Your task to perform on an android device: change alarm snooze length Image 0: 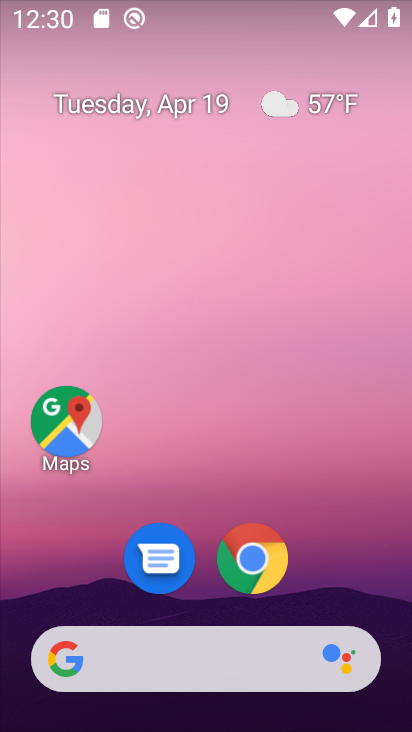
Step 0: drag from (316, 451) to (168, 106)
Your task to perform on an android device: change alarm snooze length Image 1: 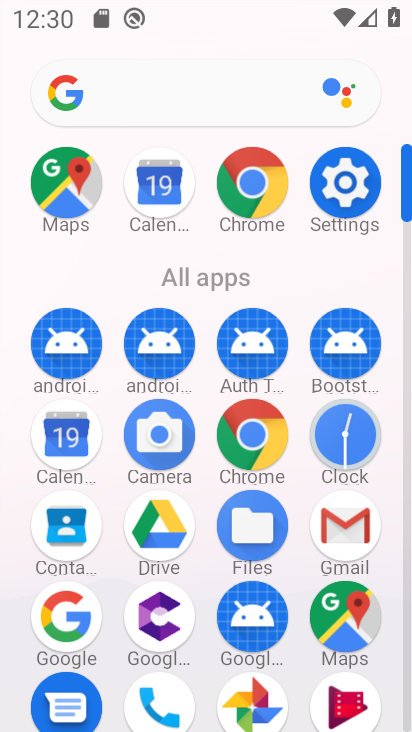
Step 1: click (335, 437)
Your task to perform on an android device: change alarm snooze length Image 2: 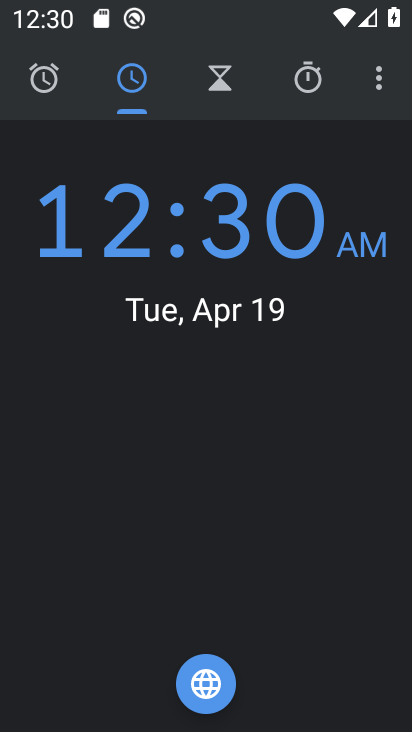
Step 2: click (383, 78)
Your task to perform on an android device: change alarm snooze length Image 3: 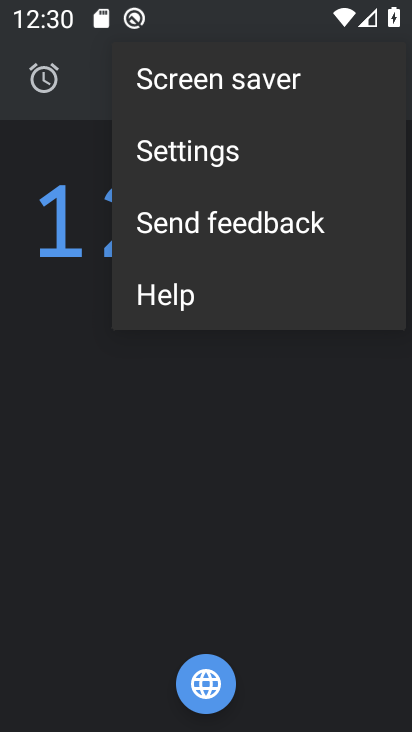
Step 3: click (201, 164)
Your task to perform on an android device: change alarm snooze length Image 4: 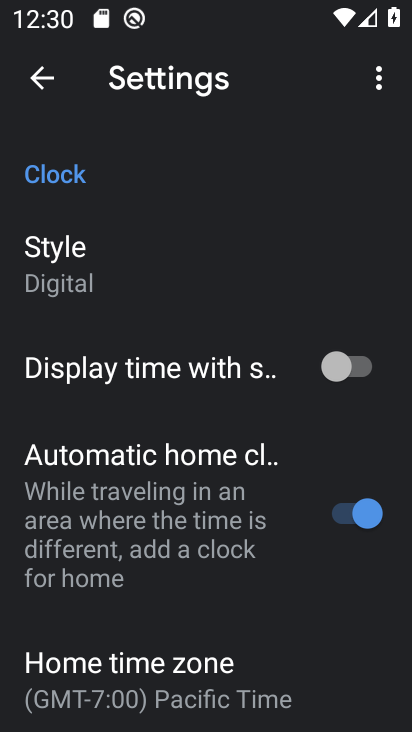
Step 4: drag from (149, 642) to (164, 210)
Your task to perform on an android device: change alarm snooze length Image 5: 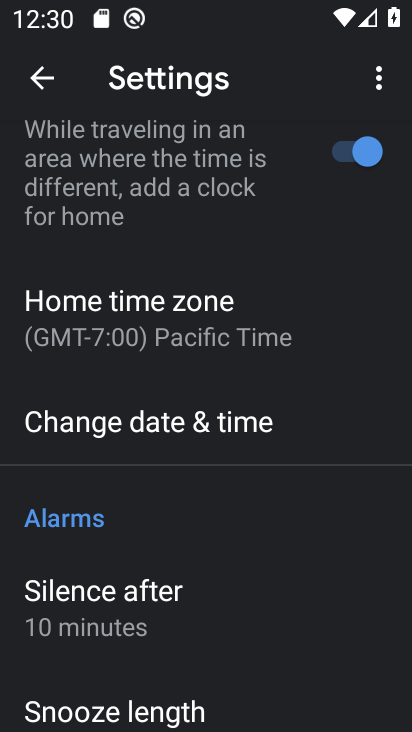
Step 5: click (133, 712)
Your task to perform on an android device: change alarm snooze length Image 6: 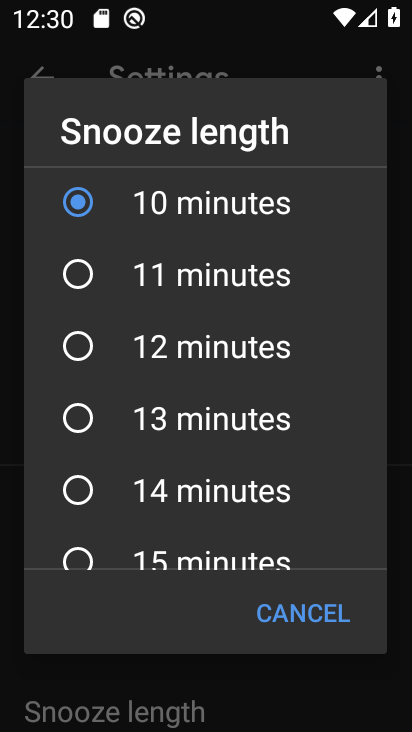
Step 6: click (85, 283)
Your task to perform on an android device: change alarm snooze length Image 7: 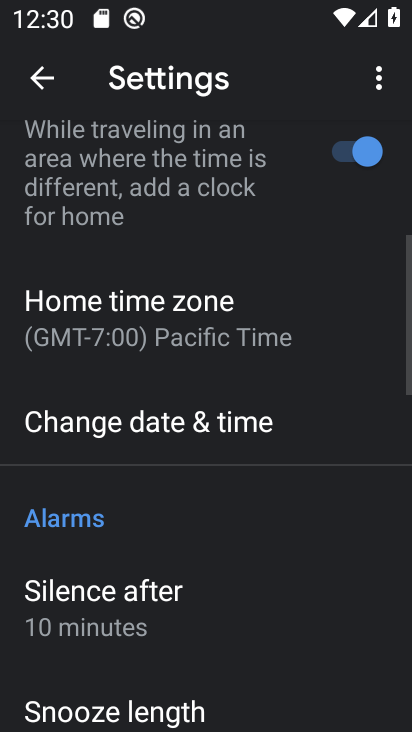
Step 7: task complete